Your task to perform on an android device: Open battery settings Image 0: 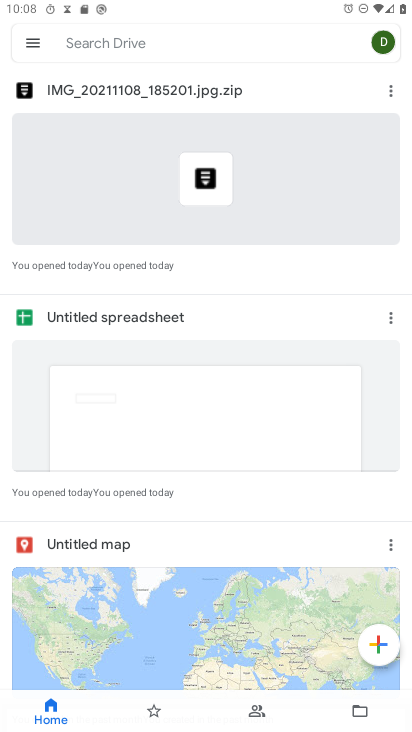
Step 0: press home button
Your task to perform on an android device: Open battery settings Image 1: 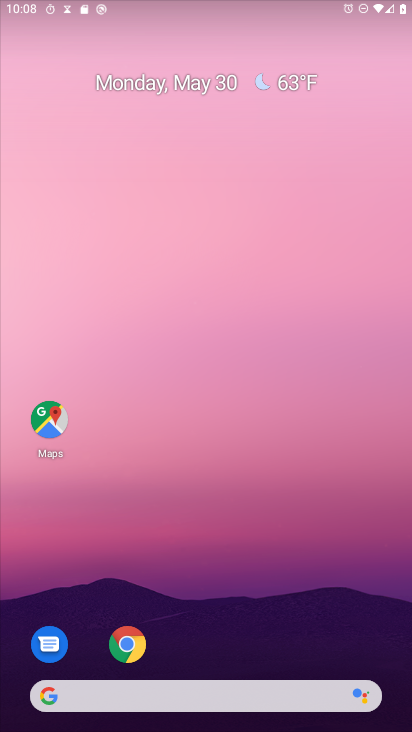
Step 1: drag from (218, 565) to (217, 18)
Your task to perform on an android device: Open battery settings Image 2: 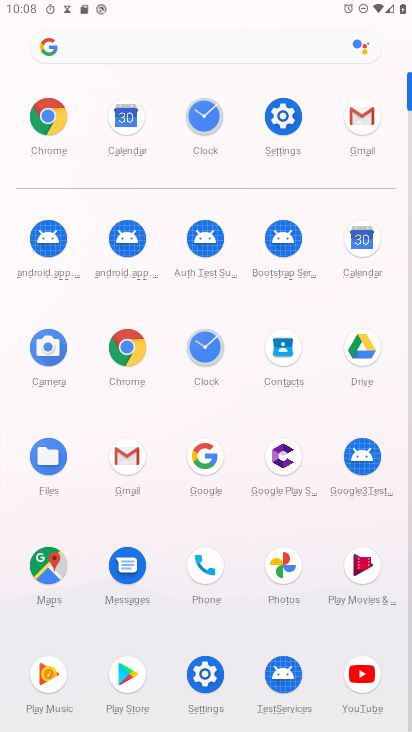
Step 2: click (284, 112)
Your task to perform on an android device: Open battery settings Image 3: 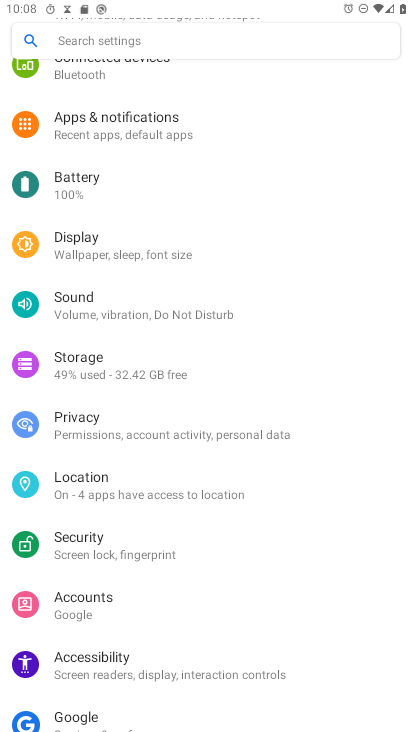
Step 3: click (88, 188)
Your task to perform on an android device: Open battery settings Image 4: 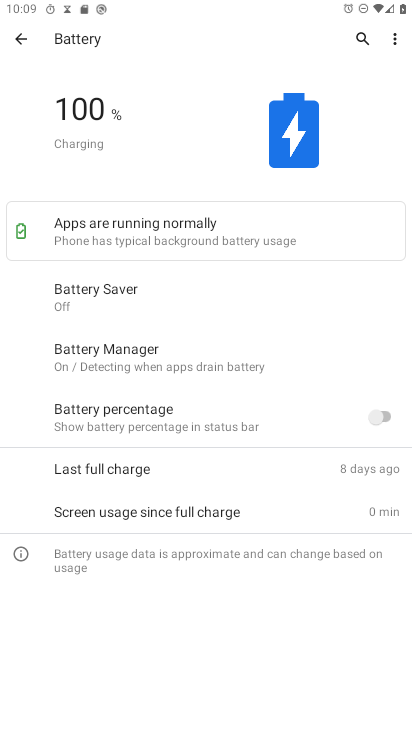
Step 4: task complete